Your task to perform on an android device: open app "Yahoo Mail" Image 0: 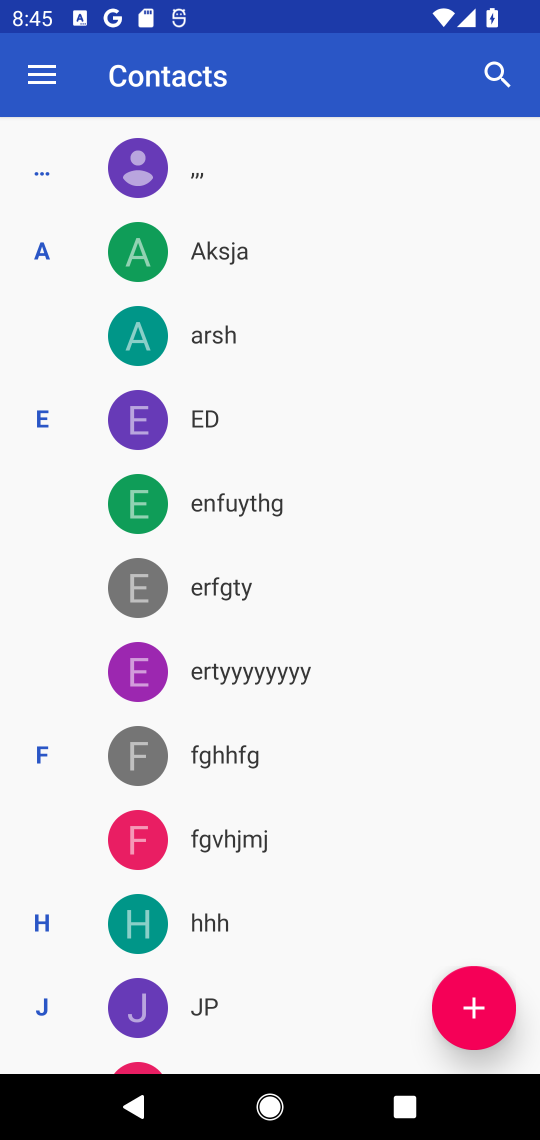
Step 0: press home button
Your task to perform on an android device: open app "Yahoo Mail" Image 1: 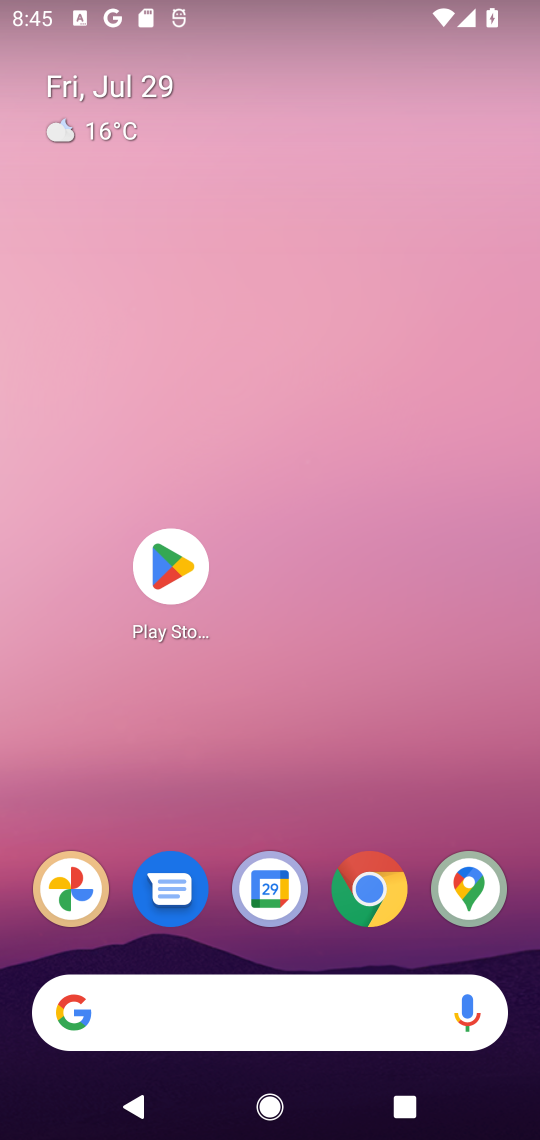
Step 1: click (187, 577)
Your task to perform on an android device: open app "Yahoo Mail" Image 2: 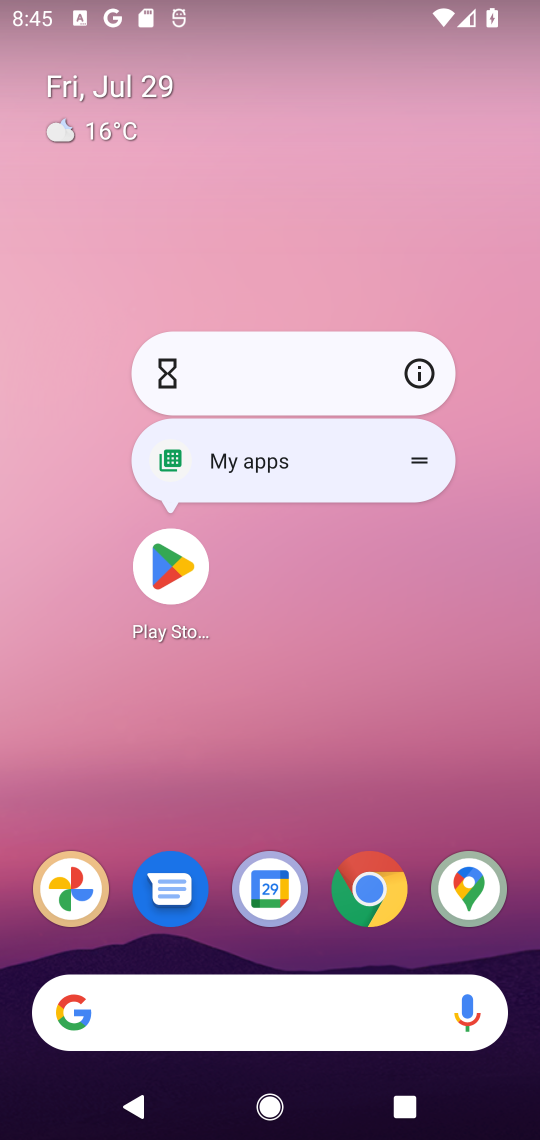
Step 2: click (187, 578)
Your task to perform on an android device: open app "Yahoo Mail" Image 3: 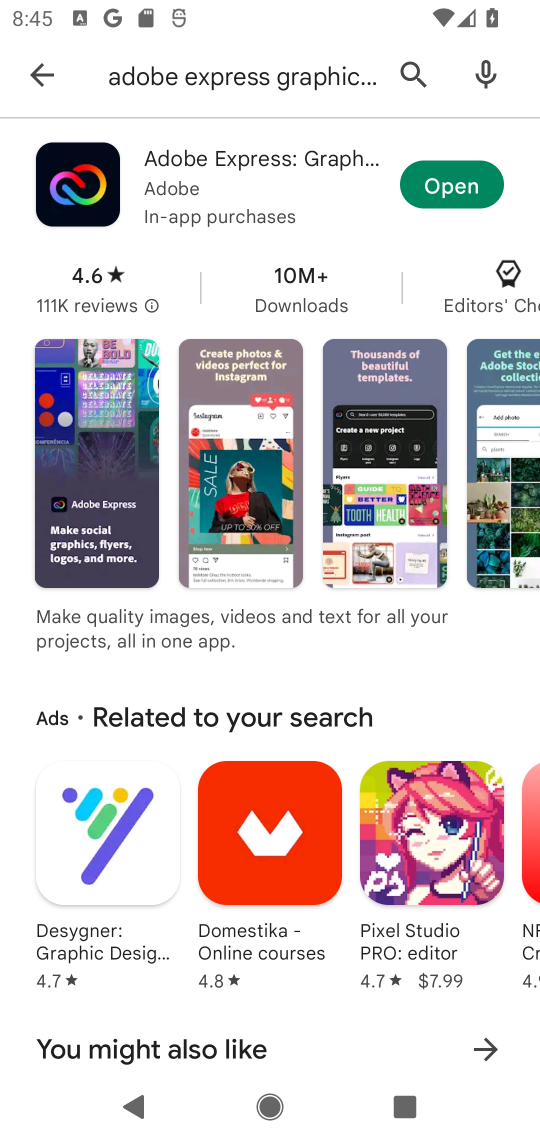
Step 3: click (408, 65)
Your task to perform on an android device: open app "Yahoo Mail" Image 4: 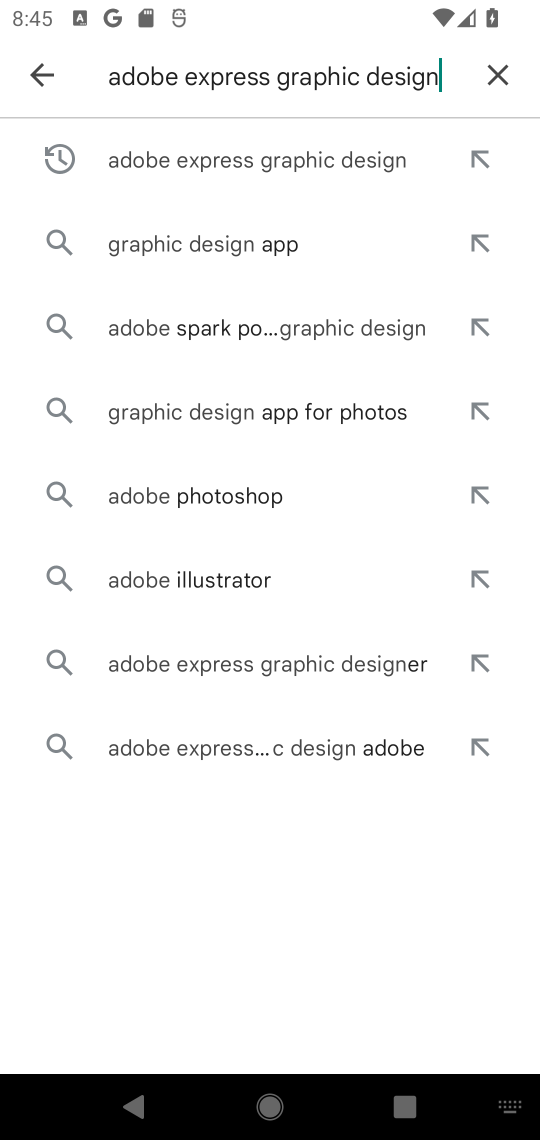
Step 4: click (497, 72)
Your task to perform on an android device: open app "Yahoo Mail" Image 5: 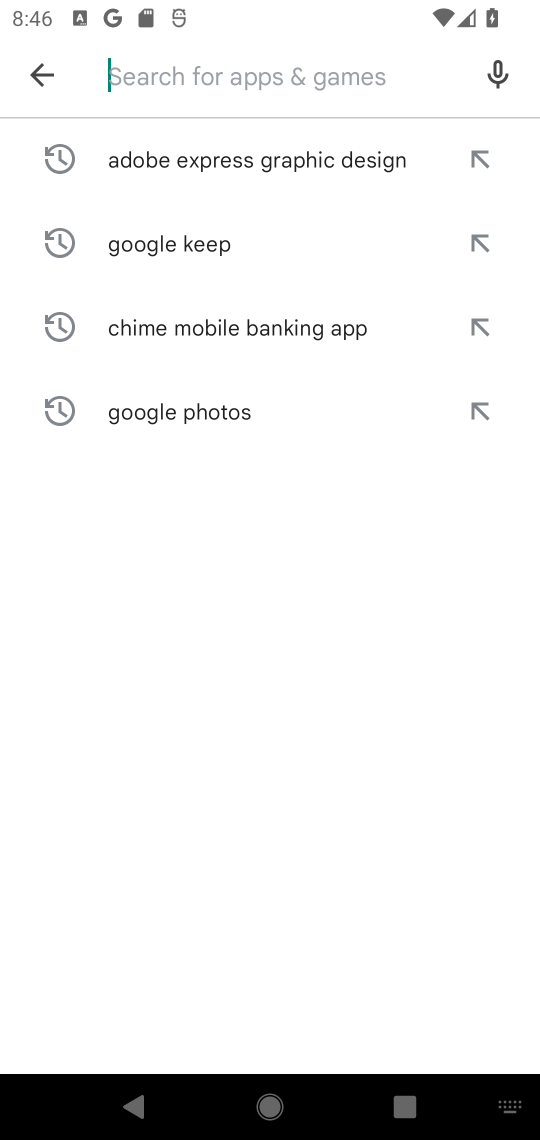
Step 5: type "Yahoo Mail"
Your task to perform on an android device: open app "Yahoo Mail" Image 6: 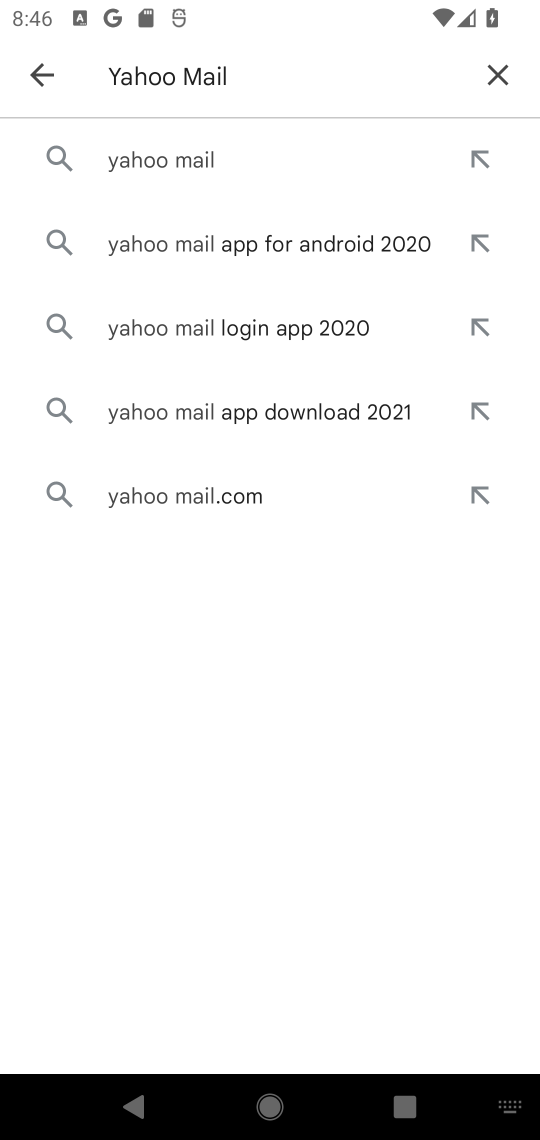
Step 6: click (202, 155)
Your task to perform on an android device: open app "Yahoo Mail" Image 7: 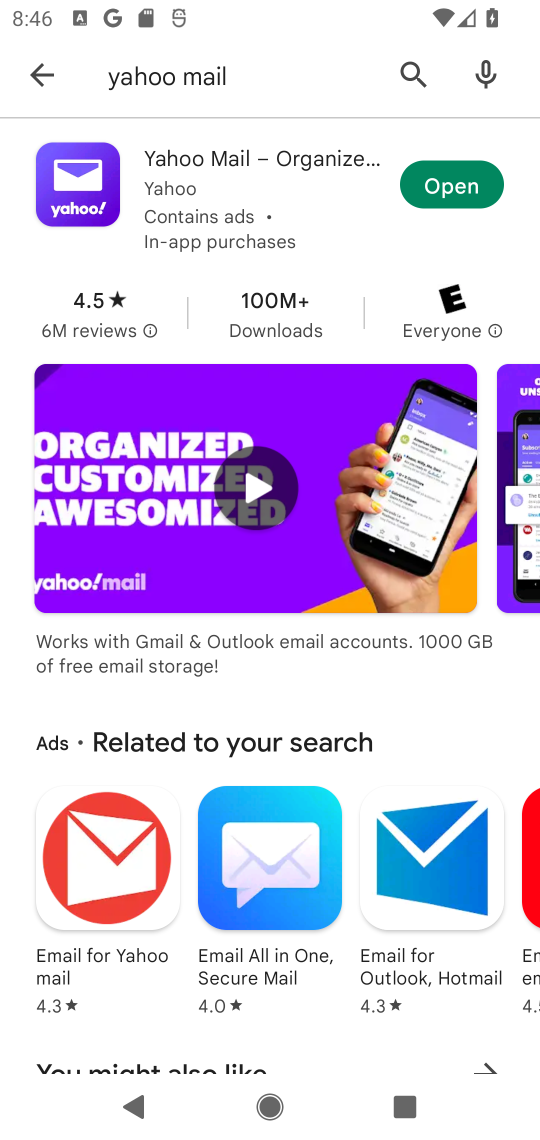
Step 7: click (443, 175)
Your task to perform on an android device: open app "Yahoo Mail" Image 8: 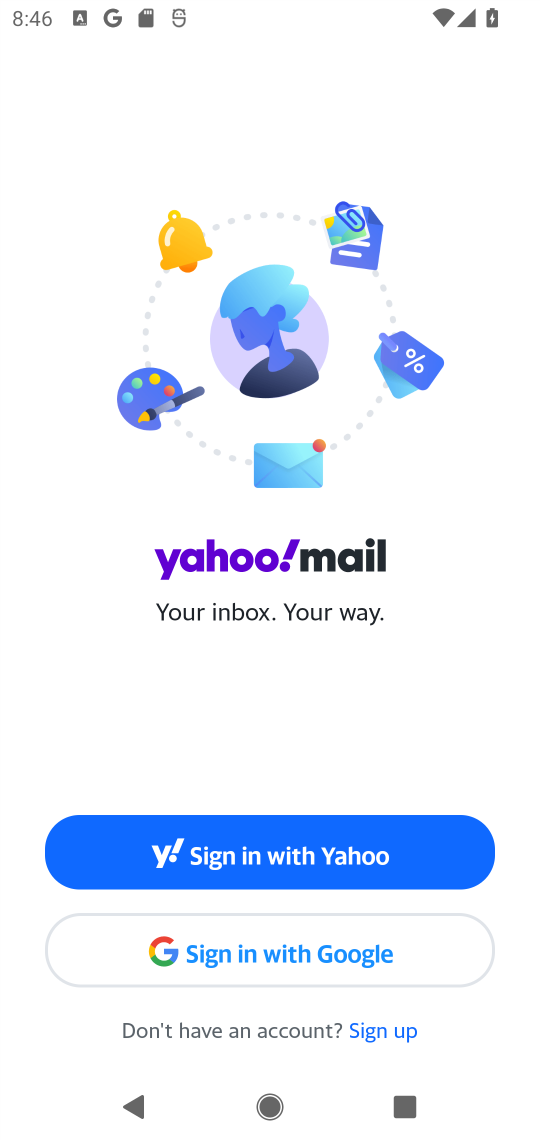
Step 8: task complete